Your task to perform on an android device: open a new tab in the chrome app Image 0: 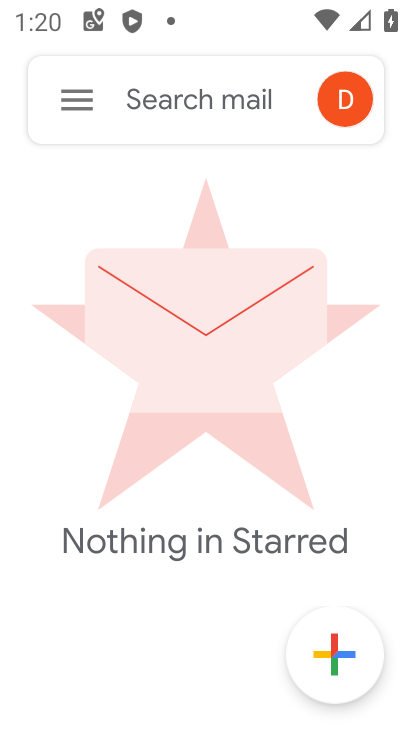
Step 0: press home button
Your task to perform on an android device: open a new tab in the chrome app Image 1: 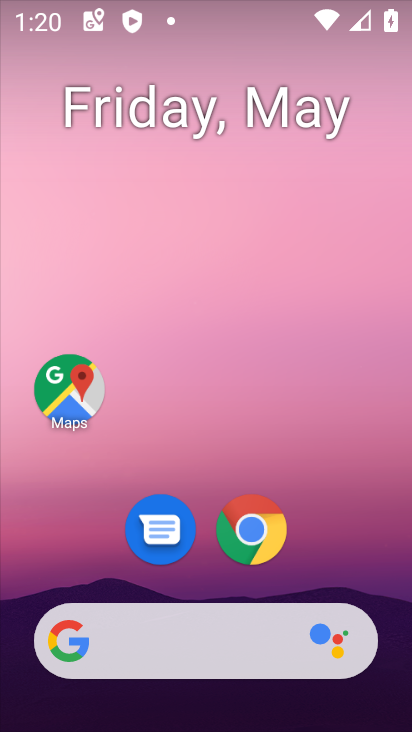
Step 1: click (365, 577)
Your task to perform on an android device: open a new tab in the chrome app Image 2: 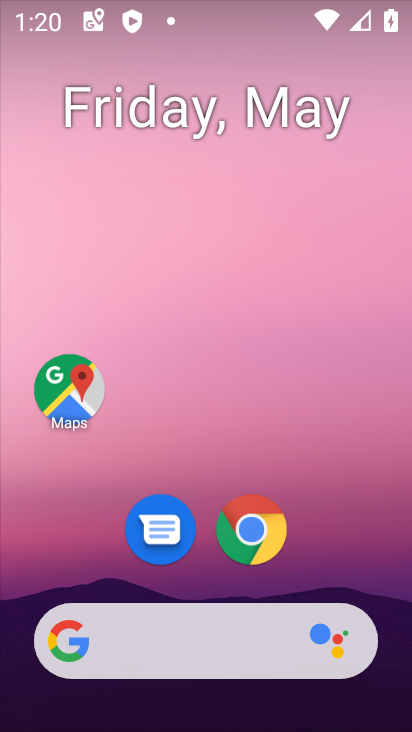
Step 2: click (365, 577)
Your task to perform on an android device: open a new tab in the chrome app Image 3: 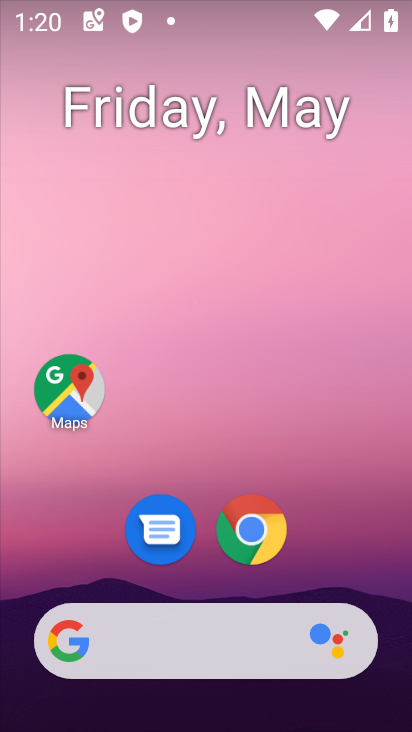
Step 3: drag from (365, 577) to (355, 53)
Your task to perform on an android device: open a new tab in the chrome app Image 4: 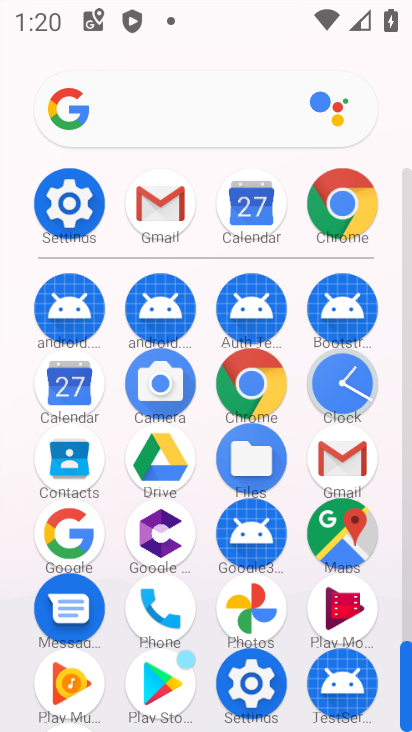
Step 4: click (356, 219)
Your task to perform on an android device: open a new tab in the chrome app Image 5: 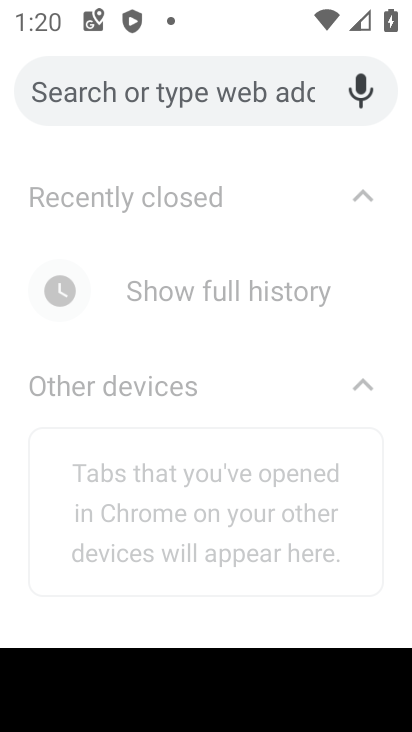
Step 5: press back button
Your task to perform on an android device: open a new tab in the chrome app Image 6: 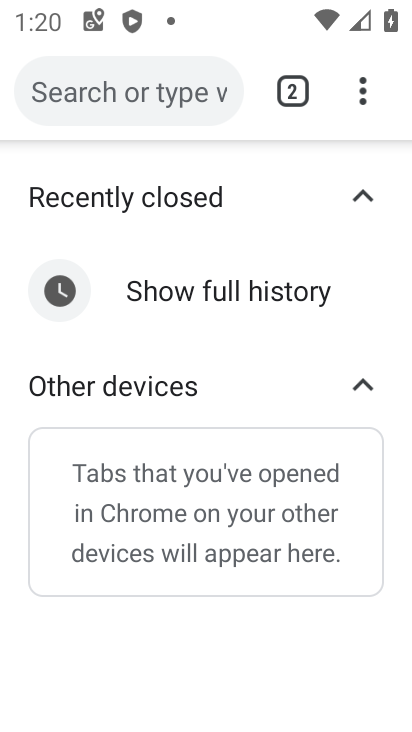
Step 6: click (300, 100)
Your task to perform on an android device: open a new tab in the chrome app Image 7: 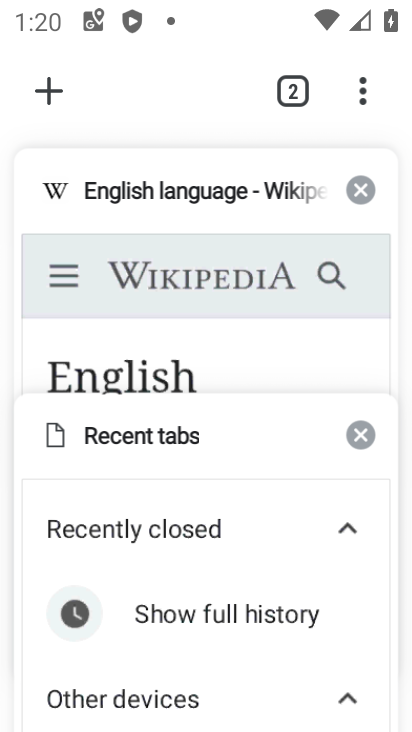
Step 7: click (60, 105)
Your task to perform on an android device: open a new tab in the chrome app Image 8: 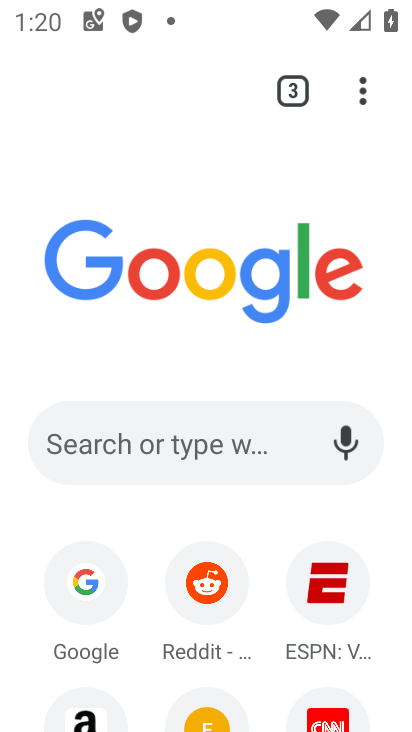
Step 8: task complete